Your task to perform on an android device: Go to Android settings Image 0: 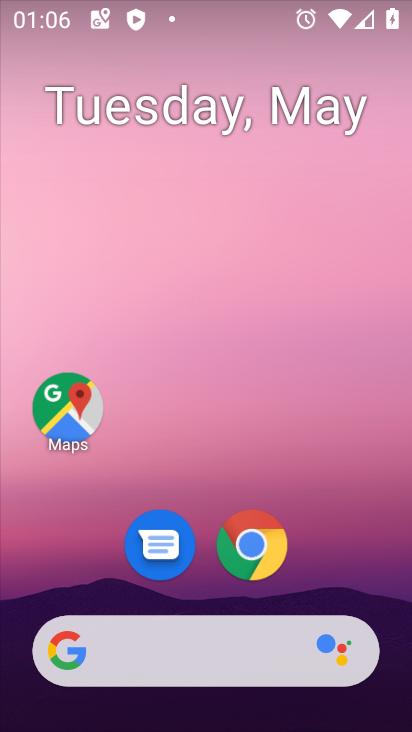
Step 0: drag from (332, 572) to (232, 0)
Your task to perform on an android device: Go to Android settings Image 1: 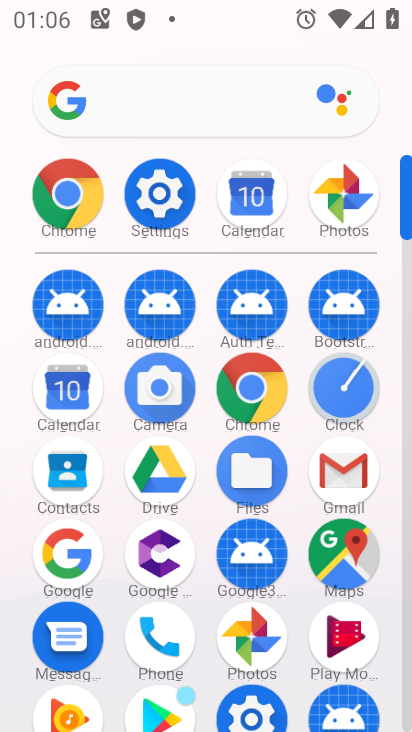
Step 1: click (168, 195)
Your task to perform on an android device: Go to Android settings Image 2: 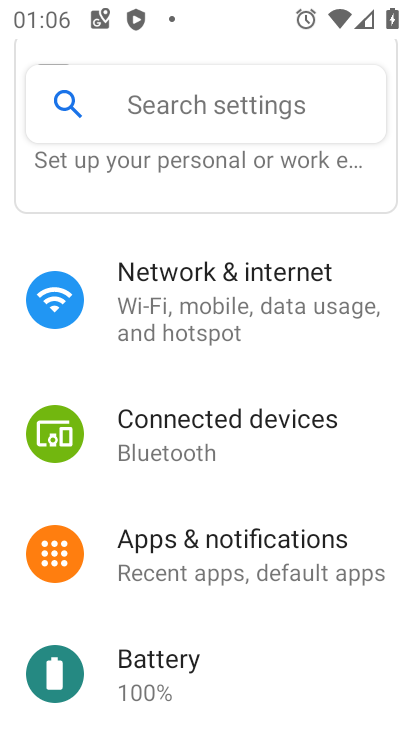
Step 2: drag from (224, 643) to (162, 430)
Your task to perform on an android device: Go to Android settings Image 3: 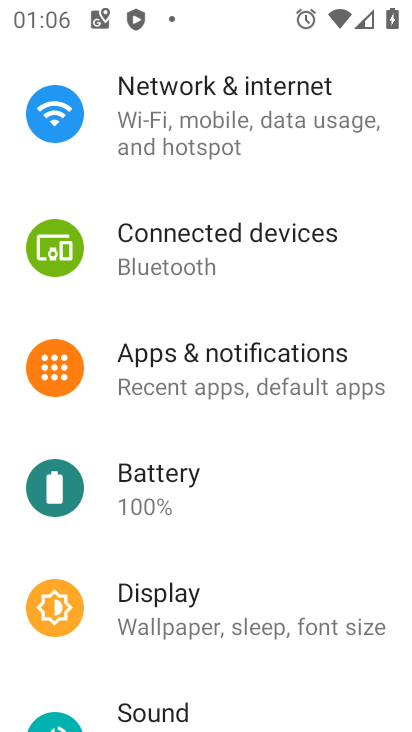
Step 3: drag from (224, 624) to (176, 451)
Your task to perform on an android device: Go to Android settings Image 4: 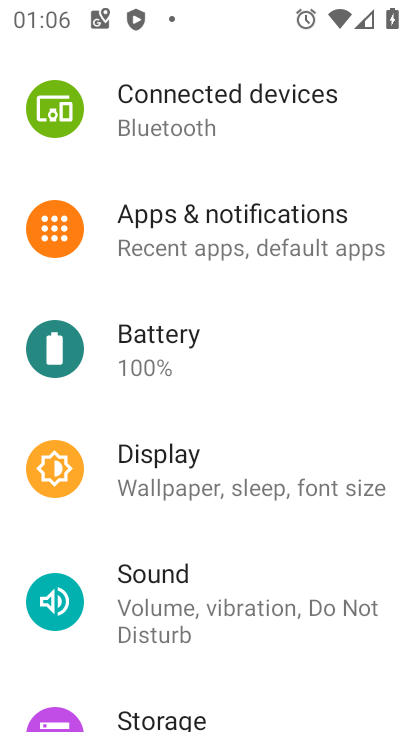
Step 4: drag from (228, 677) to (183, 511)
Your task to perform on an android device: Go to Android settings Image 5: 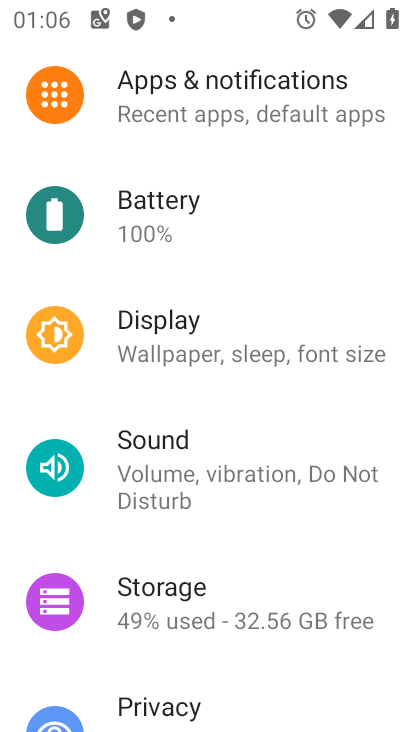
Step 5: drag from (216, 666) to (206, 494)
Your task to perform on an android device: Go to Android settings Image 6: 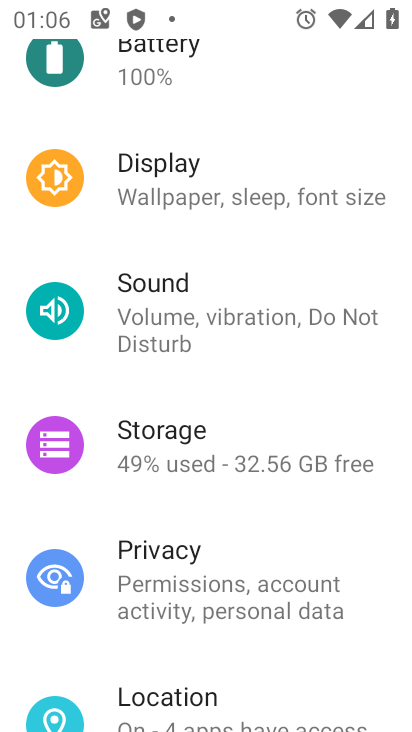
Step 6: drag from (238, 627) to (222, 464)
Your task to perform on an android device: Go to Android settings Image 7: 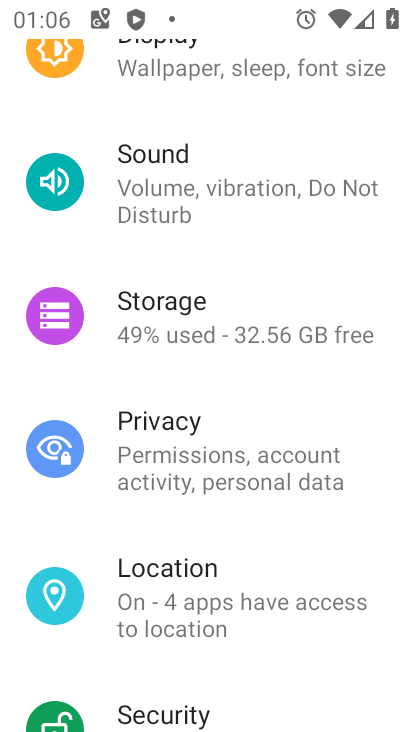
Step 7: drag from (284, 683) to (272, 493)
Your task to perform on an android device: Go to Android settings Image 8: 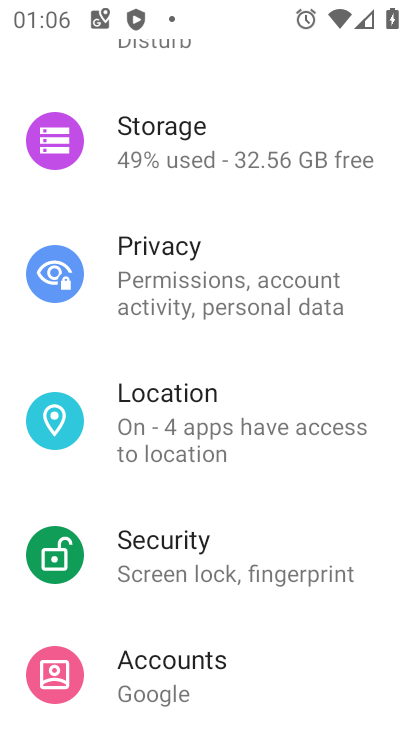
Step 8: drag from (267, 655) to (258, 511)
Your task to perform on an android device: Go to Android settings Image 9: 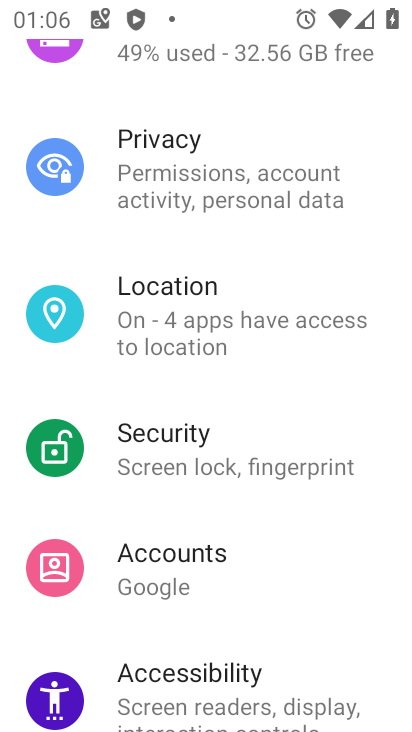
Step 9: drag from (272, 659) to (269, 487)
Your task to perform on an android device: Go to Android settings Image 10: 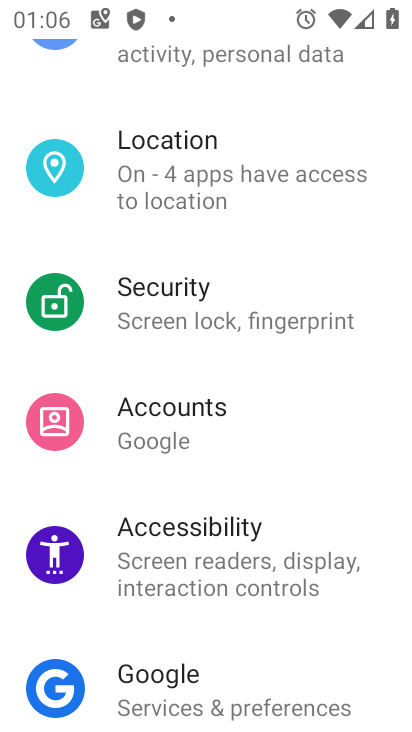
Step 10: drag from (283, 656) to (269, 455)
Your task to perform on an android device: Go to Android settings Image 11: 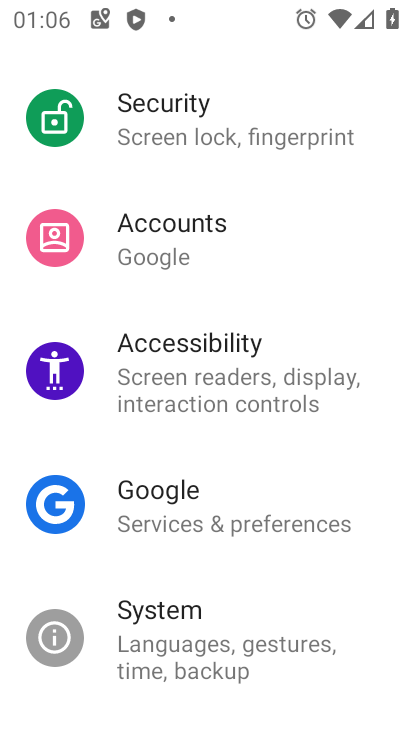
Step 11: click (261, 639)
Your task to perform on an android device: Go to Android settings Image 12: 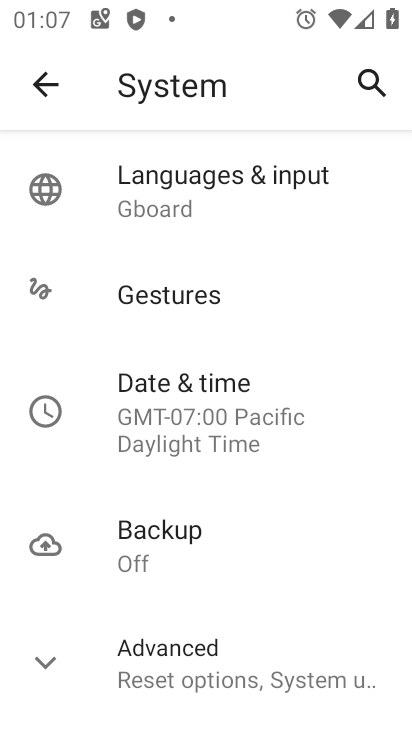
Step 12: task complete